Your task to perform on an android device: turn off sleep mode Image 0: 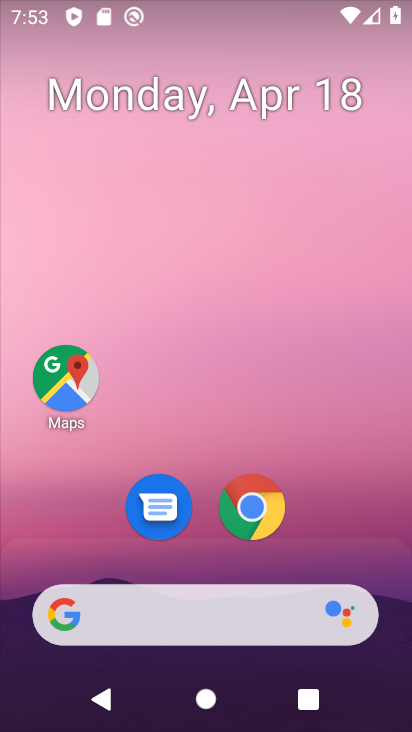
Step 0: click (272, 257)
Your task to perform on an android device: turn off sleep mode Image 1: 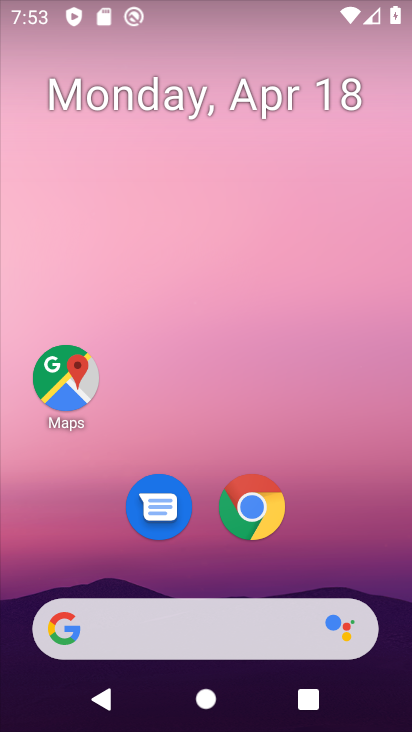
Step 1: drag from (247, 707) to (184, 116)
Your task to perform on an android device: turn off sleep mode Image 2: 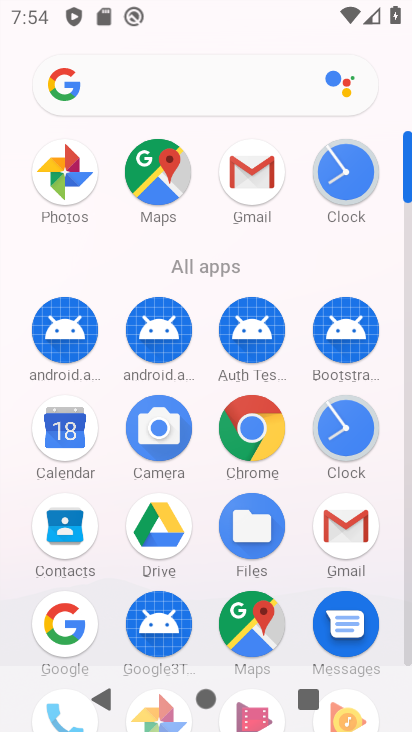
Step 2: drag from (201, 563) to (180, 234)
Your task to perform on an android device: turn off sleep mode Image 3: 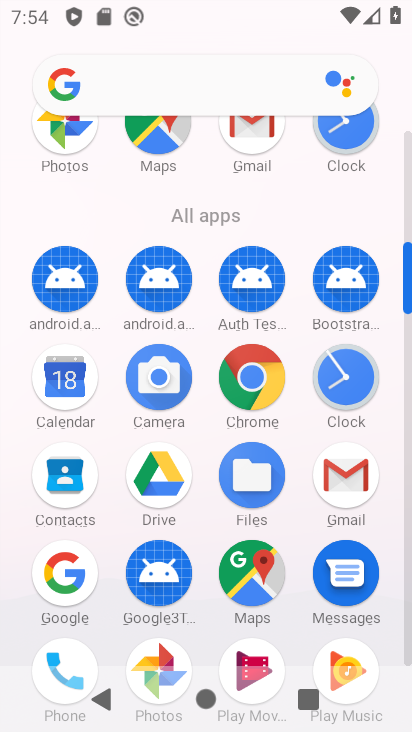
Step 3: drag from (195, 552) to (197, 154)
Your task to perform on an android device: turn off sleep mode Image 4: 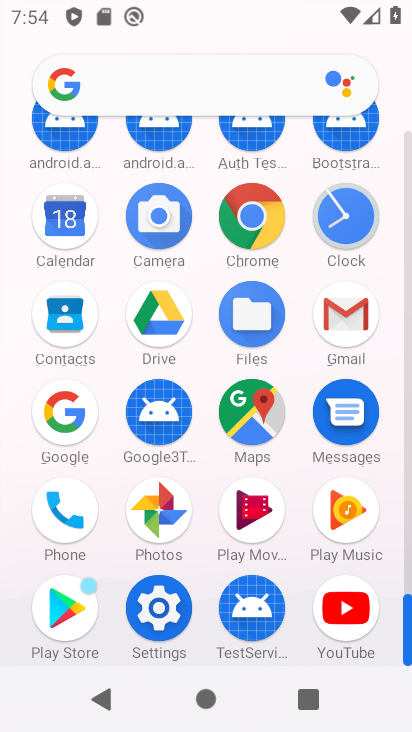
Step 4: click (142, 611)
Your task to perform on an android device: turn off sleep mode Image 5: 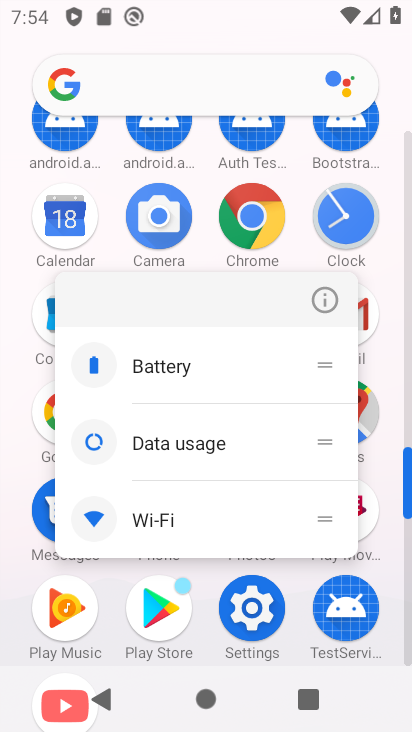
Step 5: click (261, 612)
Your task to perform on an android device: turn off sleep mode Image 6: 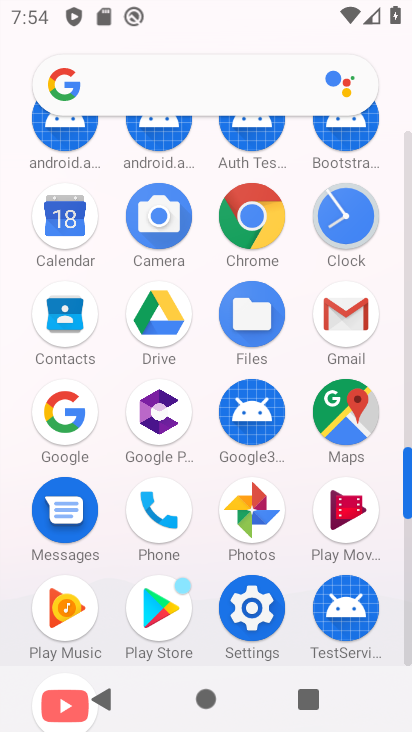
Step 6: click (261, 610)
Your task to perform on an android device: turn off sleep mode Image 7: 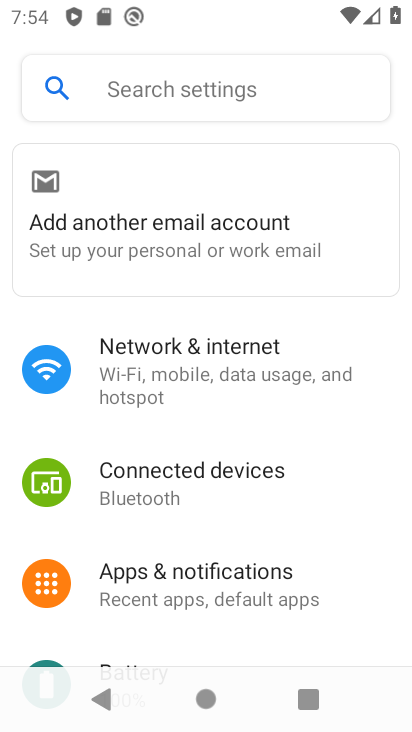
Step 7: drag from (277, 590) to (264, 278)
Your task to perform on an android device: turn off sleep mode Image 8: 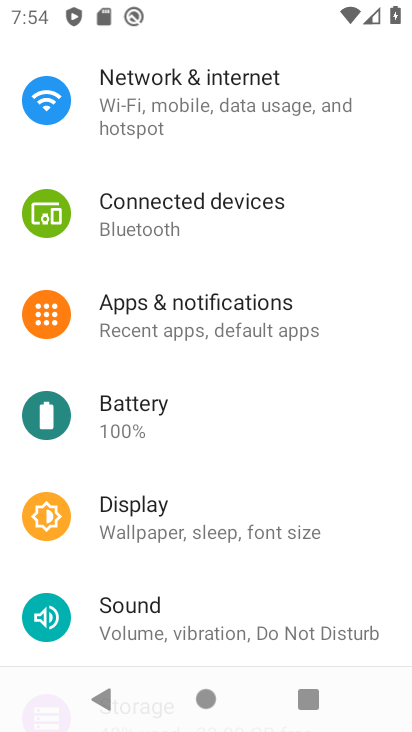
Step 8: click (233, 532)
Your task to perform on an android device: turn off sleep mode Image 9: 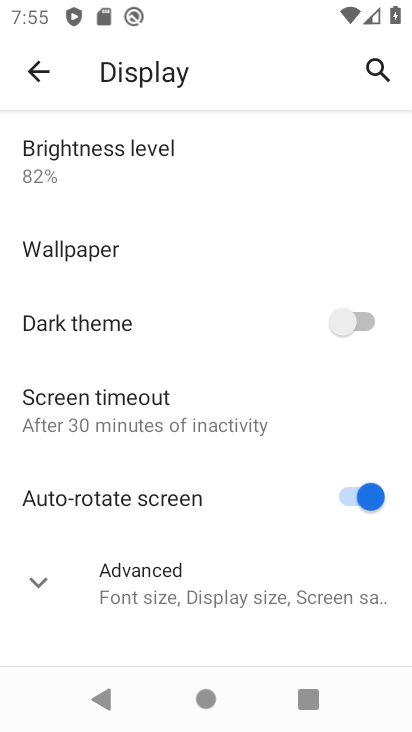
Step 9: click (242, 592)
Your task to perform on an android device: turn off sleep mode Image 10: 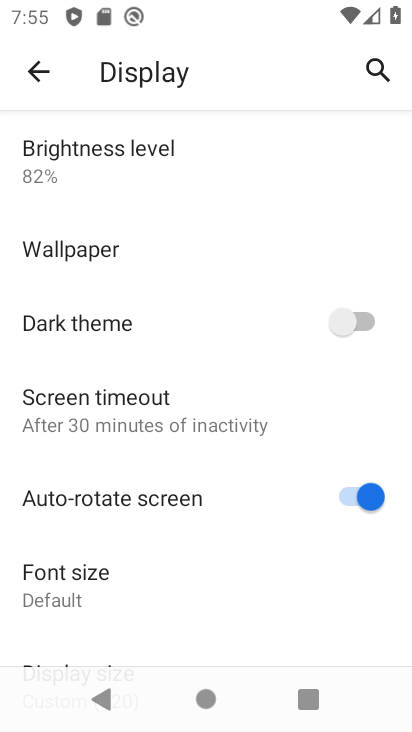
Step 10: task complete